Your task to perform on an android device: Open Chrome and go to the settings page Image 0: 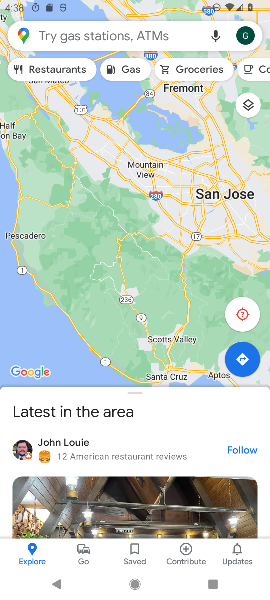
Step 0: press home button
Your task to perform on an android device: Open Chrome and go to the settings page Image 1: 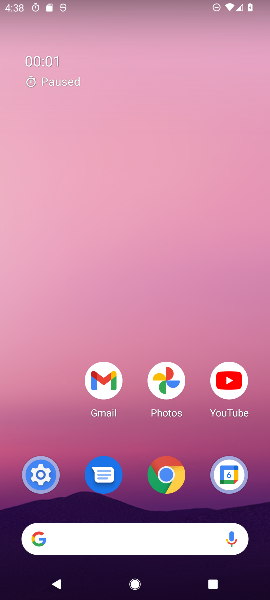
Step 1: click (157, 481)
Your task to perform on an android device: Open Chrome and go to the settings page Image 2: 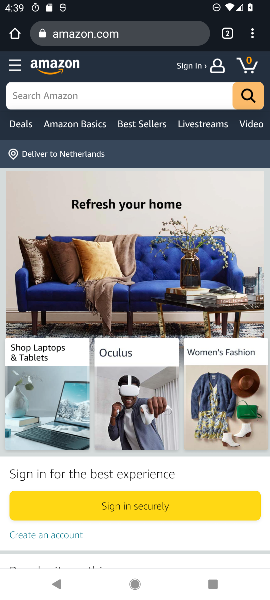
Step 2: click (253, 38)
Your task to perform on an android device: Open Chrome and go to the settings page Image 3: 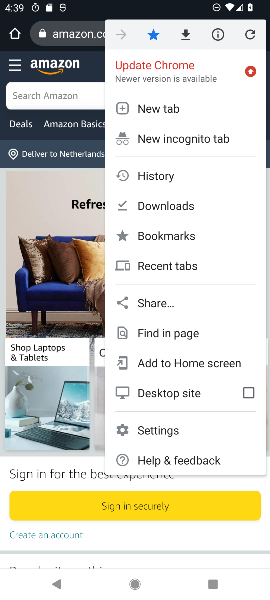
Step 3: click (154, 429)
Your task to perform on an android device: Open Chrome and go to the settings page Image 4: 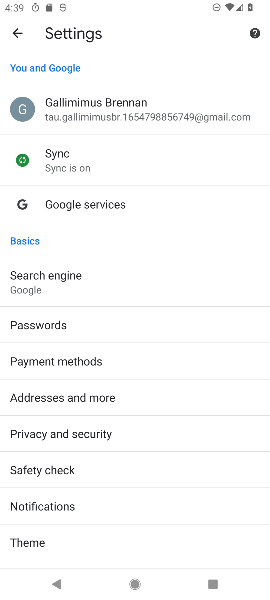
Step 4: task complete